Your task to perform on an android device: Open the stopwatch Image 0: 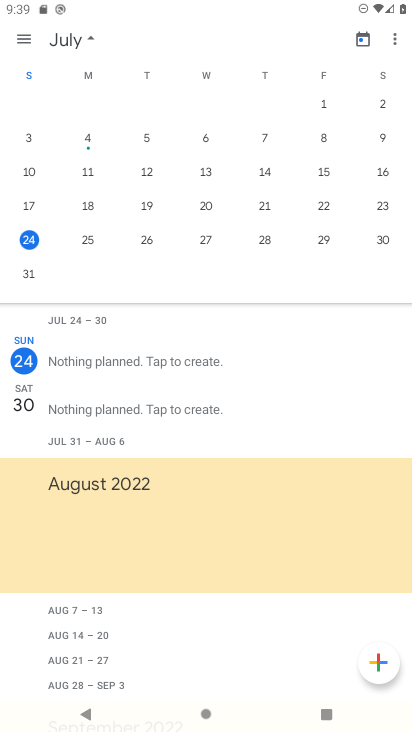
Step 0: drag from (183, 622) to (209, 359)
Your task to perform on an android device: Open the stopwatch Image 1: 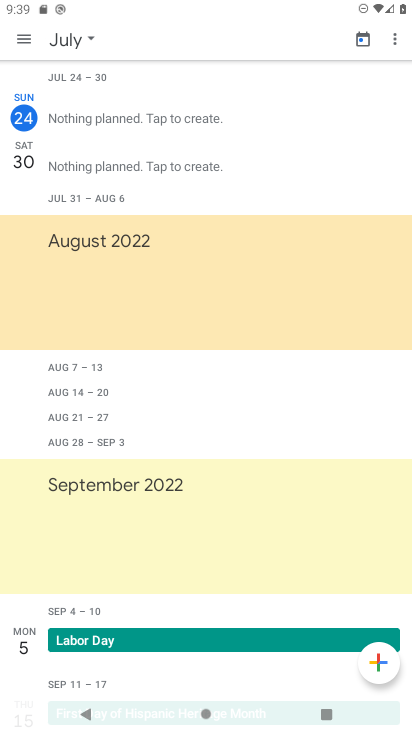
Step 1: press home button
Your task to perform on an android device: Open the stopwatch Image 2: 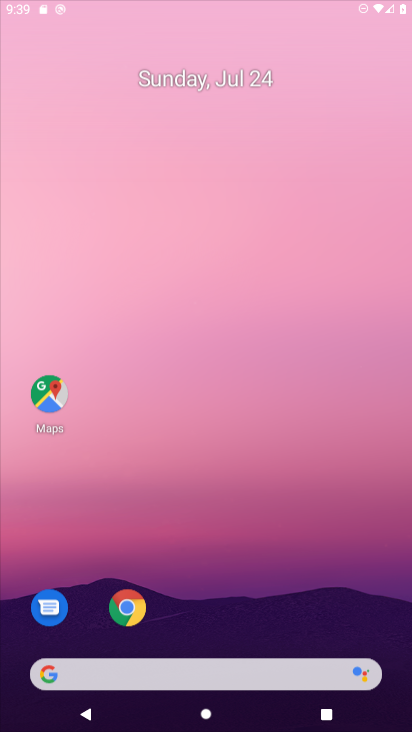
Step 2: drag from (183, 596) to (259, 146)
Your task to perform on an android device: Open the stopwatch Image 3: 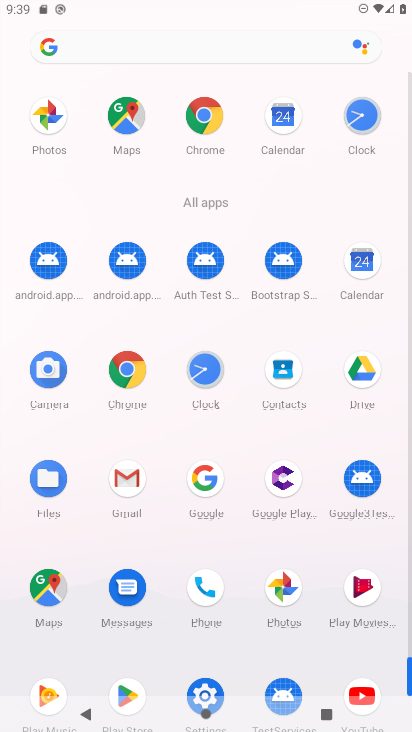
Step 3: click (208, 363)
Your task to perform on an android device: Open the stopwatch Image 4: 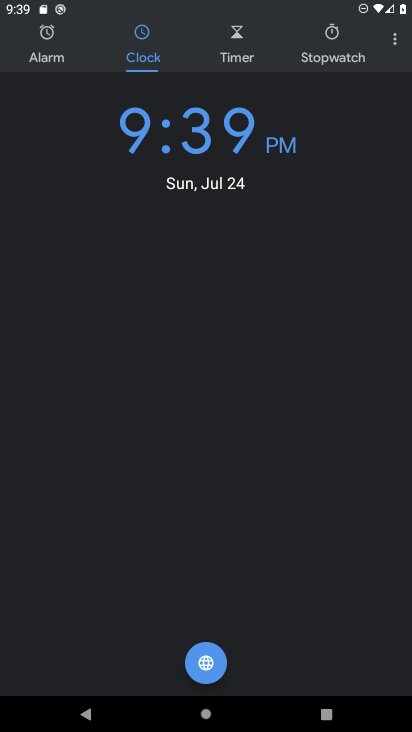
Step 4: click (341, 49)
Your task to perform on an android device: Open the stopwatch Image 5: 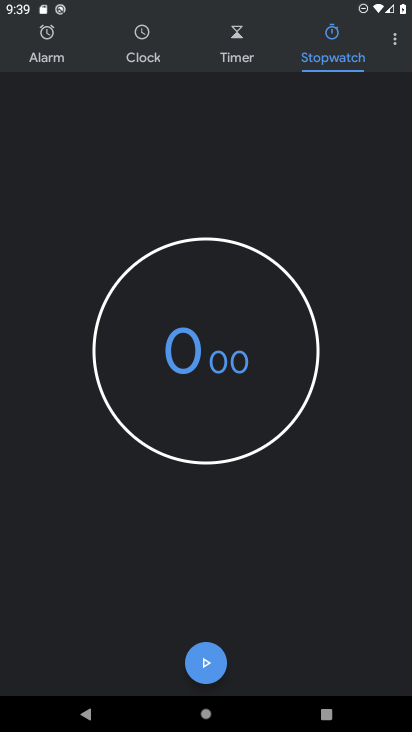
Step 5: drag from (237, 484) to (297, 167)
Your task to perform on an android device: Open the stopwatch Image 6: 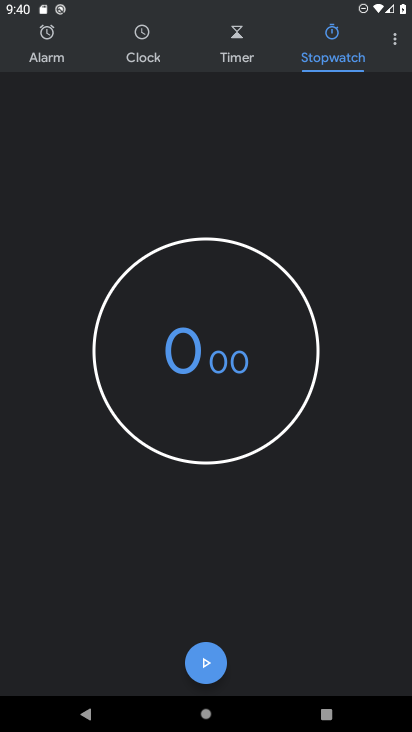
Step 6: click (206, 664)
Your task to perform on an android device: Open the stopwatch Image 7: 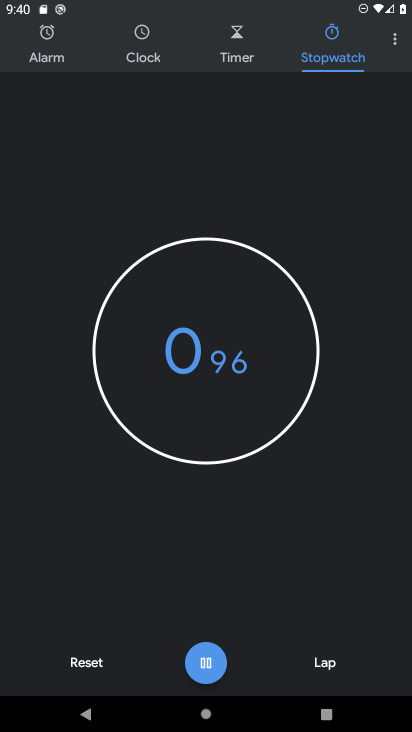
Step 7: task complete